Your task to perform on an android device: remove spam from my inbox in the gmail app Image 0: 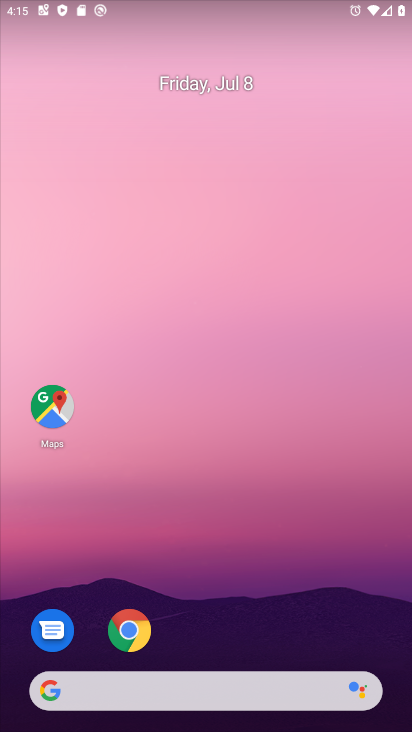
Step 0: drag from (225, 661) to (292, 0)
Your task to perform on an android device: remove spam from my inbox in the gmail app Image 1: 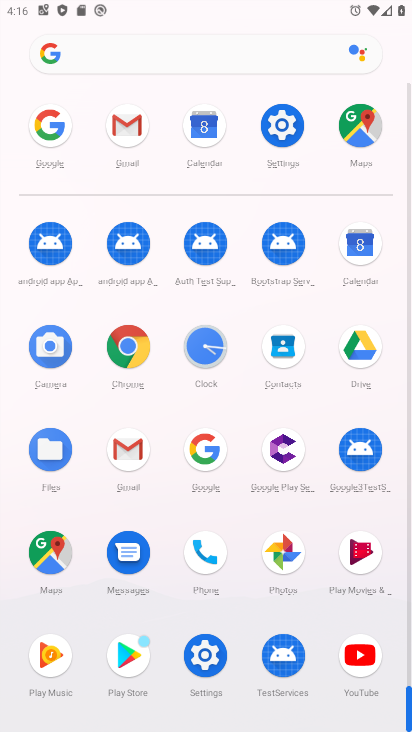
Step 1: click (123, 125)
Your task to perform on an android device: remove spam from my inbox in the gmail app Image 2: 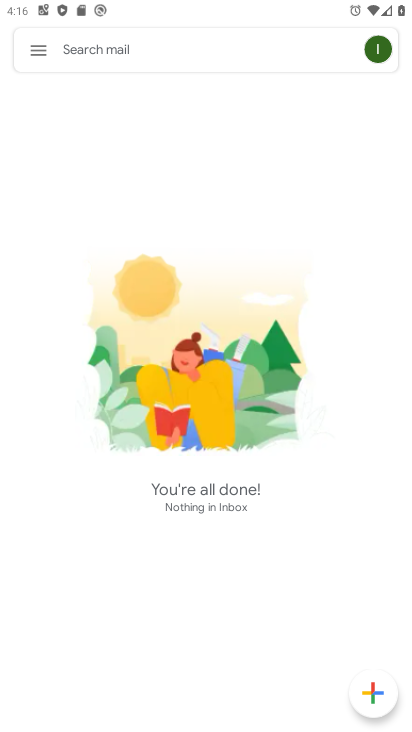
Step 2: click (37, 52)
Your task to perform on an android device: remove spam from my inbox in the gmail app Image 3: 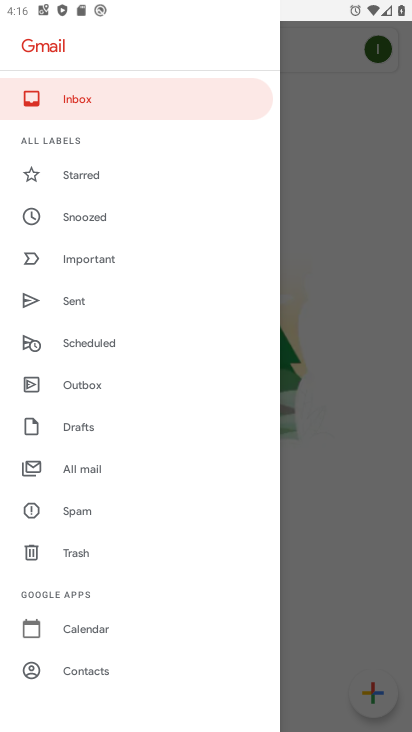
Step 3: click (81, 499)
Your task to perform on an android device: remove spam from my inbox in the gmail app Image 4: 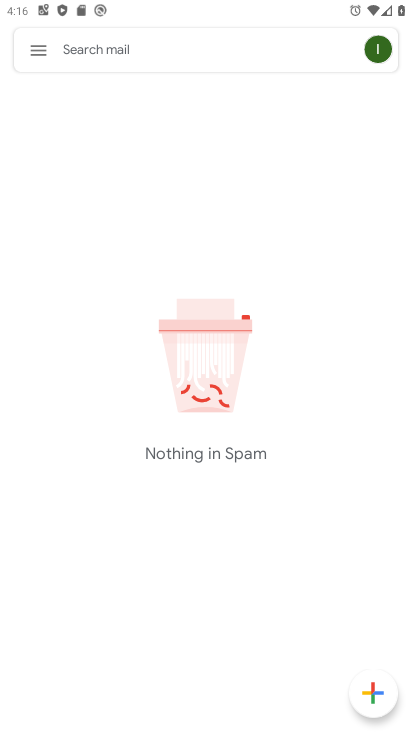
Step 4: task complete